Your task to perform on an android device: Open settings Image 0: 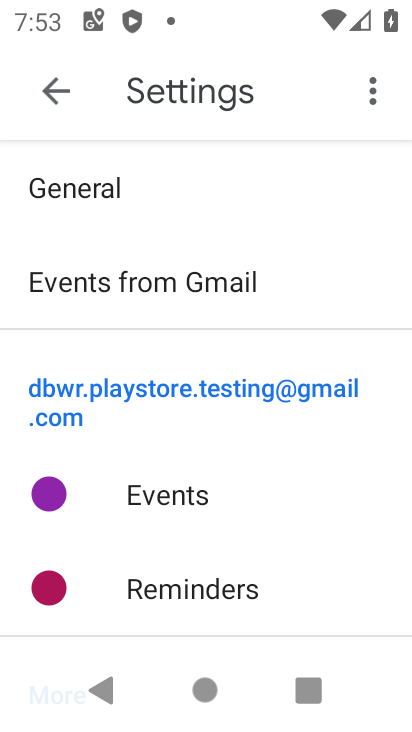
Step 0: press home button
Your task to perform on an android device: Open settings Image 1: 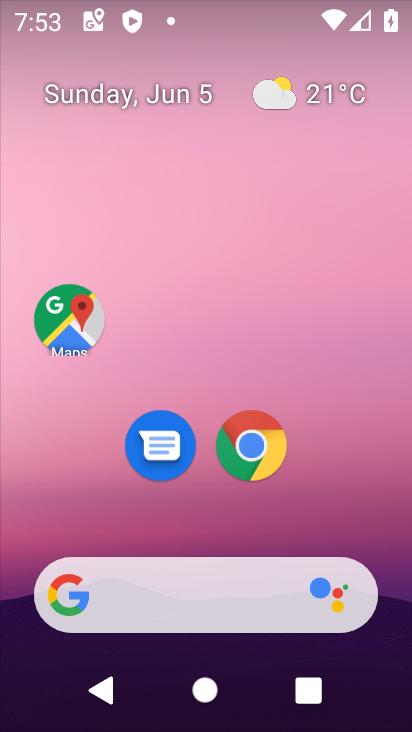
Step 1: drag from (342, 498) to (339, 198)
Your task to perform on an android device: Open settings Image 2: 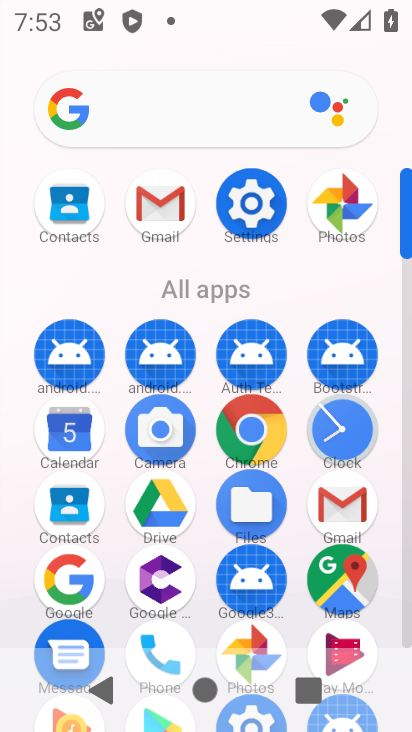
Step 2: click (243, 208)
Your task to perform on an android device: Open settings Image 3: 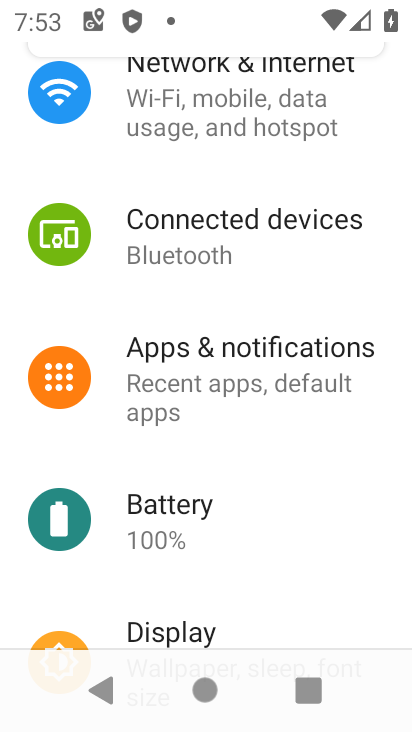
Step 3: task complete